Your task to perform on an android device: toggle wifi Image 0: 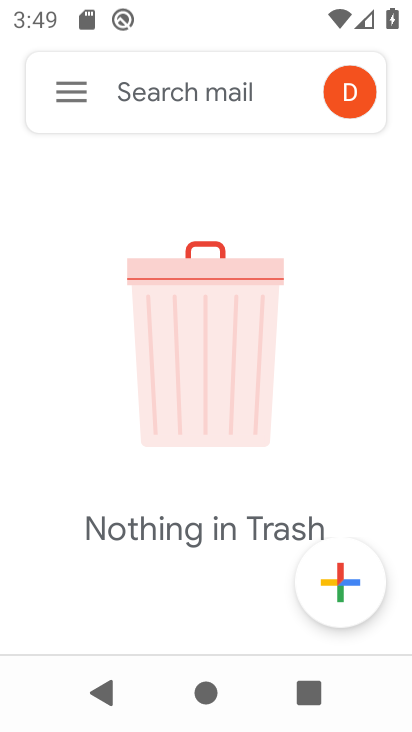
Step 0: press home button
Your task to perform on an android device: toggle wifi Image 1: 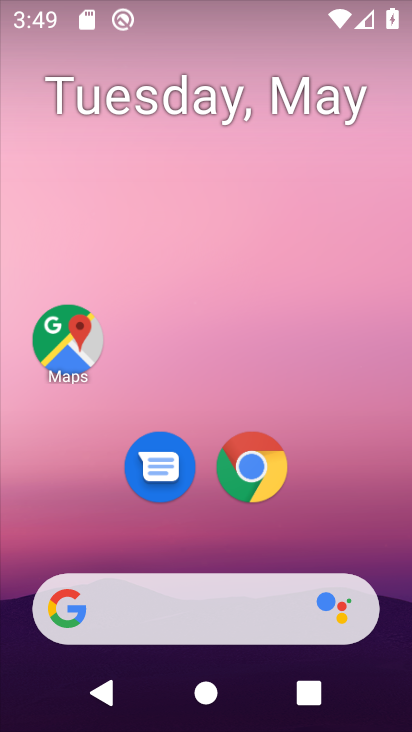
Step 1: drag from (217, 536) to (182, 8)
Your task to perform on an android device: toggle wifi Image 2: 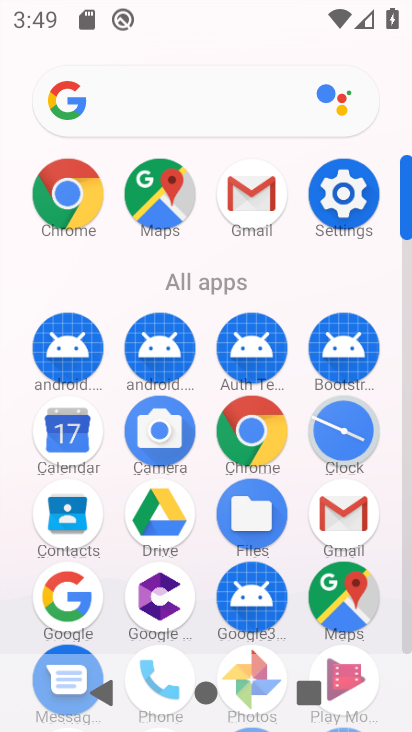
Step 2: click (337, 191)
Your task to perform on an android device: toggle wifi Image 3: 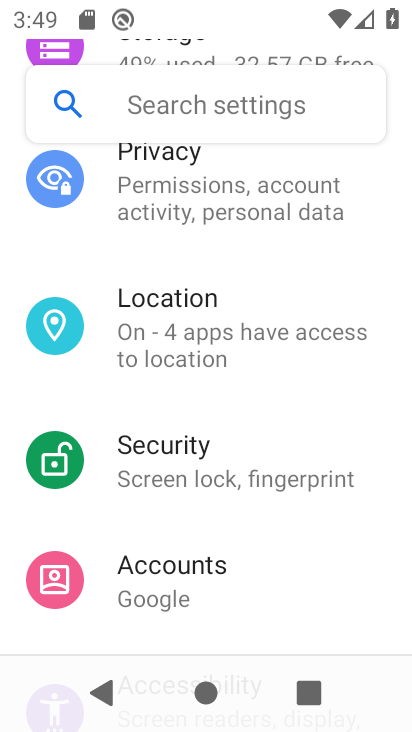
Step 3: click (212, 702)
Your task to perform on an android device: toggle wifi Image 4: 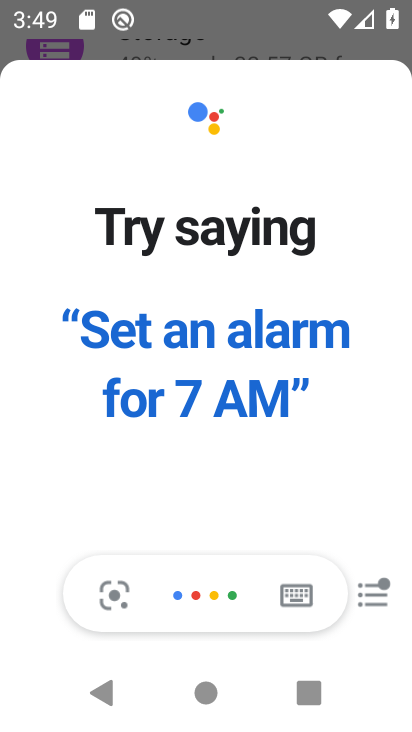
Step 4: press back button
Your task to perform on an android device: toggle wifi Image 5: 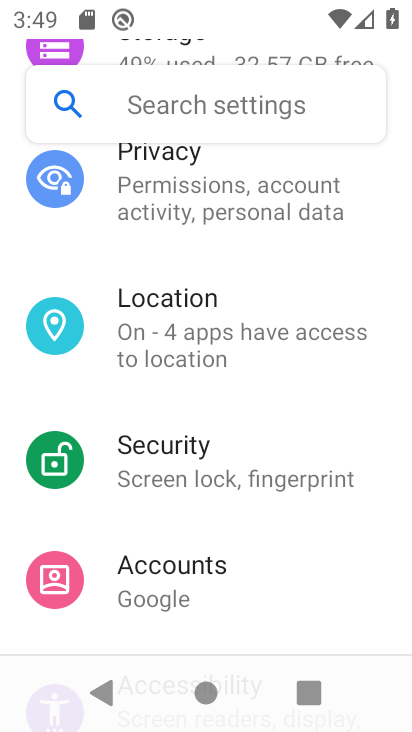
Step 5: drag from (269, 281) to (283, 673)
Your task to perform on an android device: toggle wifi Image 6: 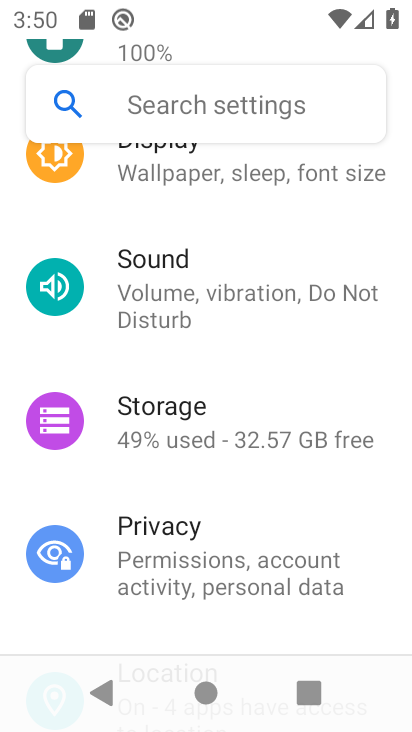
Step 6: drag from (271, 319) to (330, 729)
Your task to perform on an android device: toggle wifi Image 7: 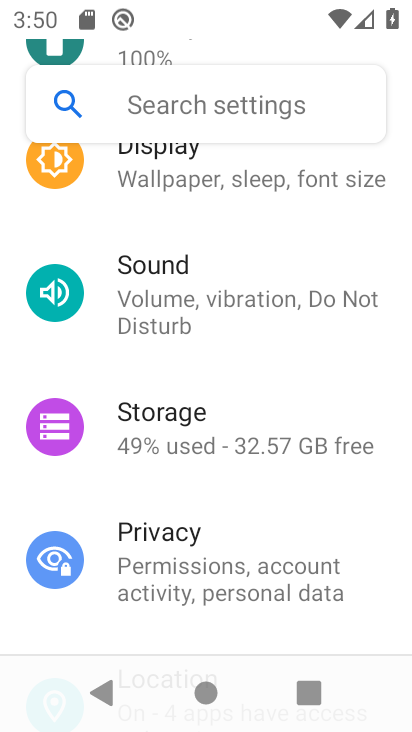
Step 7: drag from (232, 326) to (250, 617)
Your task to perform on an android device: toggle wifi Image 8: 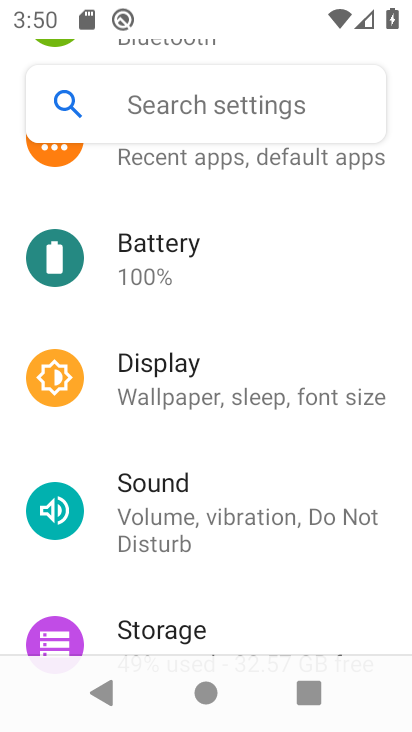
Step 8: drag from (267, 379) to (255, 730)
Your task to perform on an android device: toggle wifi Image 9: 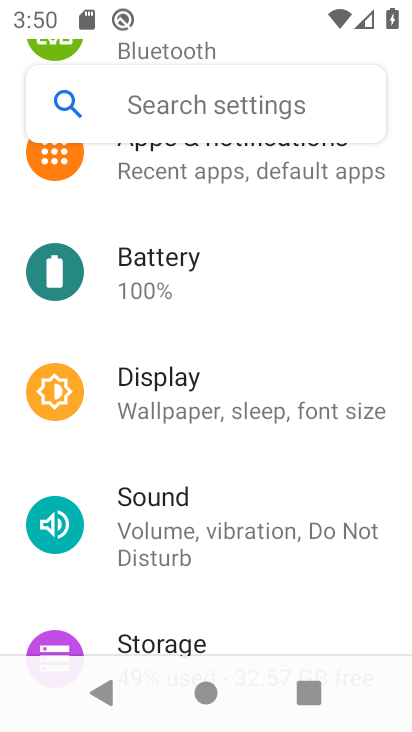
Step 9: drag from (285, 217) to (264, 712)
Your task to perform on an android device: toggle wifi Image 10: 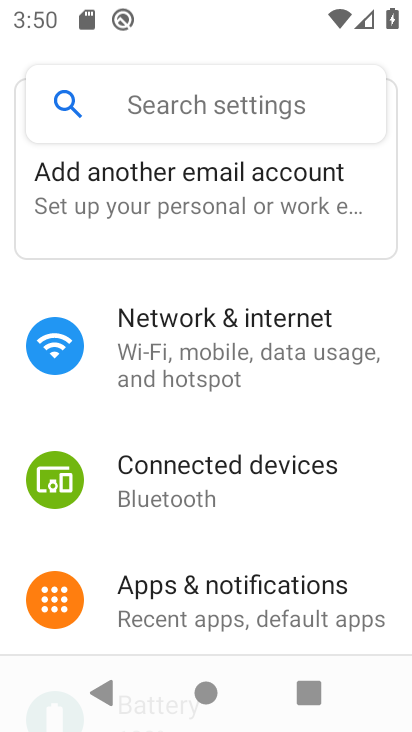
Step 10: click (190, 337)
Your task to perform on an android device: toggle wifi Image 11: 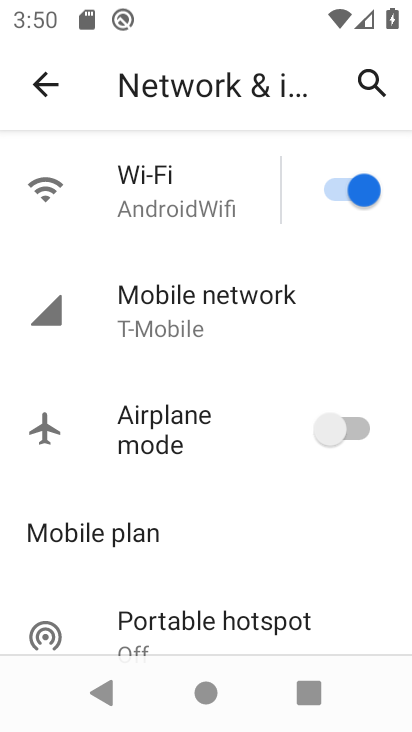
Step 11: click (325, 193)
Your task to perform on an android device: toggle wifi Image 12: 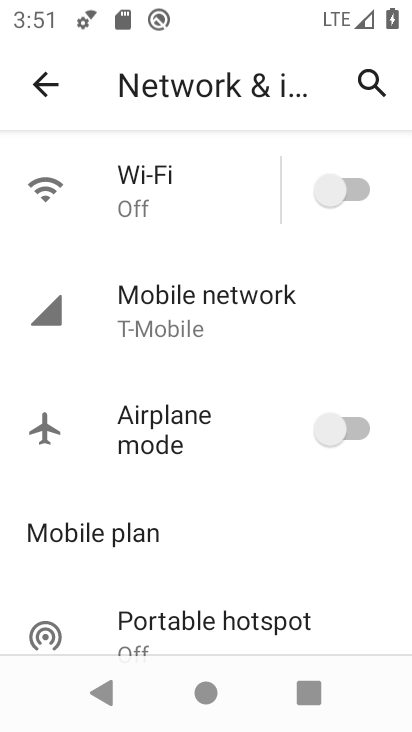
Step 12: click (357, 190)
Your task to perform on an android device: toggle wifi Image 13: 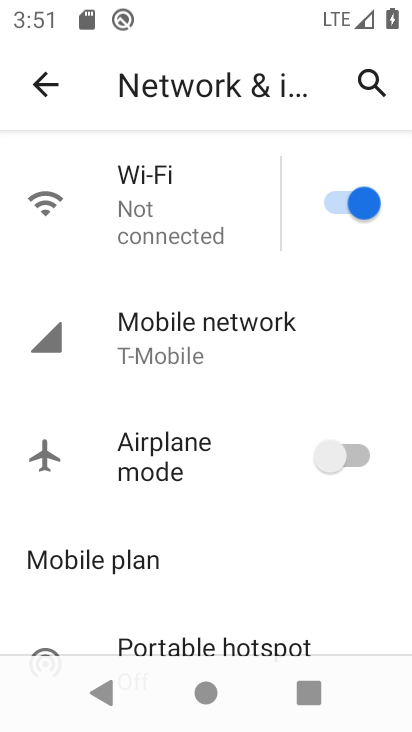
Step 13: task complete